Your task to perform on an android device: turn off airplane mode Image 0: 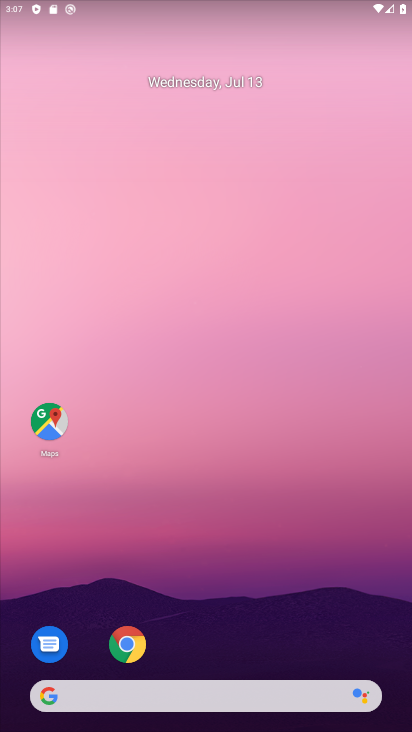
Step 0: drag from (191, 596) to (239, 14)
Your task to perform on an android device: turn off airplane mode Image 1: 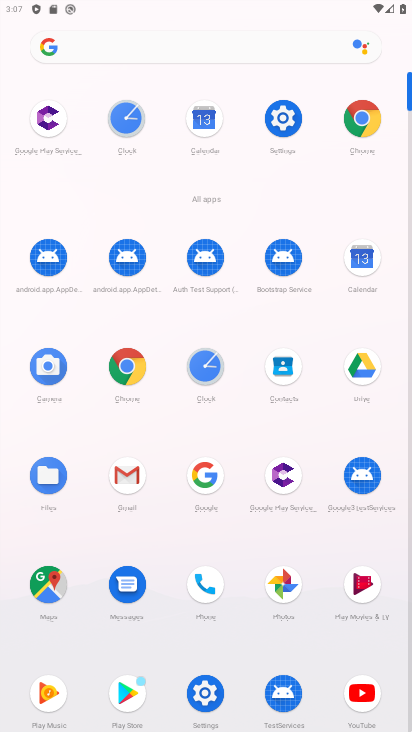
Step 1: task complete